Your task to perform on an android device: Open the web browser Image 0: 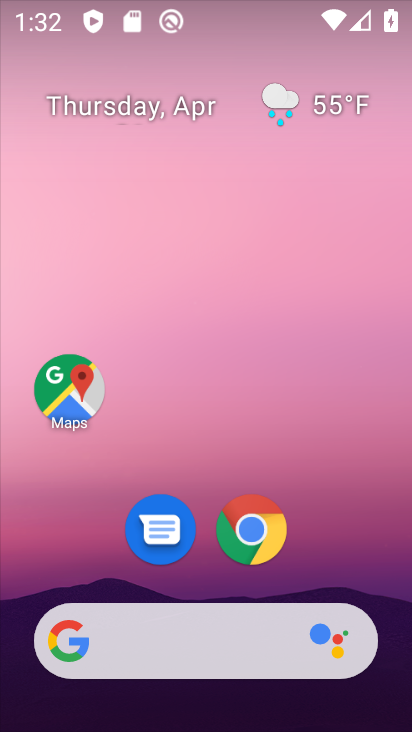
Step 0: click (280, 545)
Your task to perform on an android device: Open the web browser Image 1: 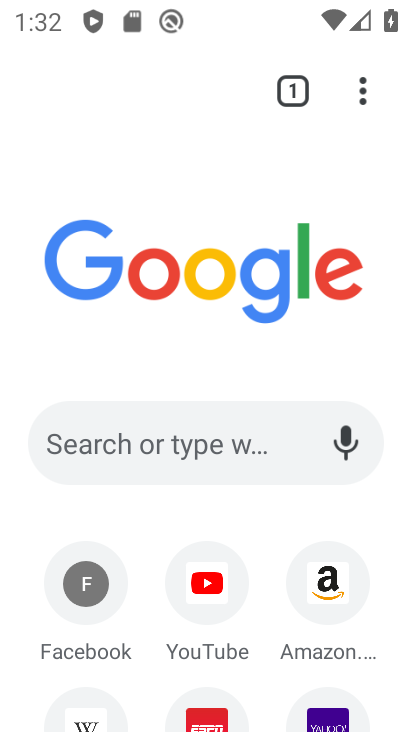
Step 1: task complete